Your task to perform on an android device: What is the news today? Image 0: 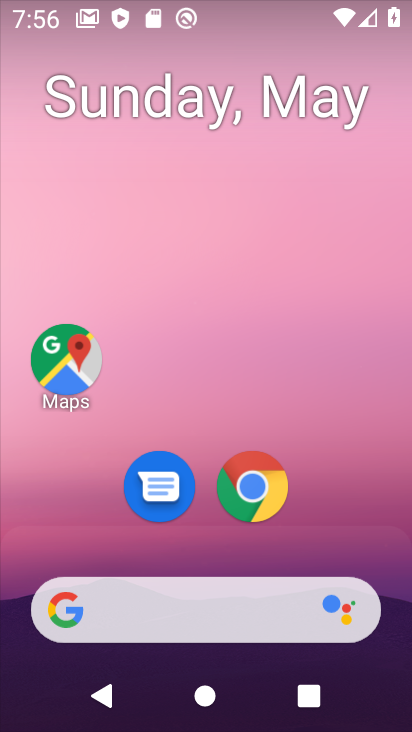
Step 0: click (244, 491)
Your task to perform on an android device: What is the news today? Image 1: 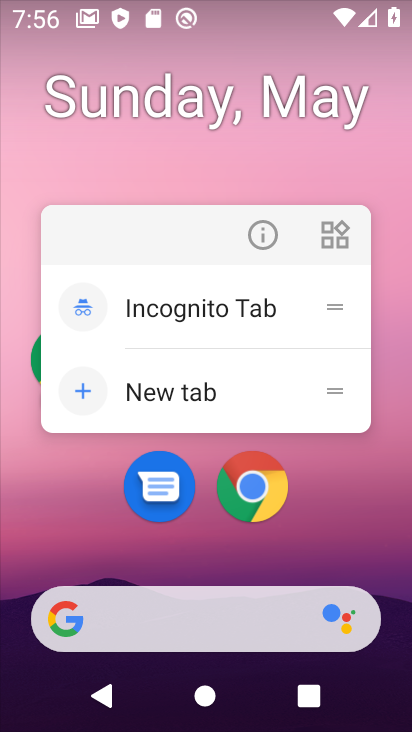
Step 1: click (254, 242)
Your task to perform on an android device: What is the news today? Image 2: 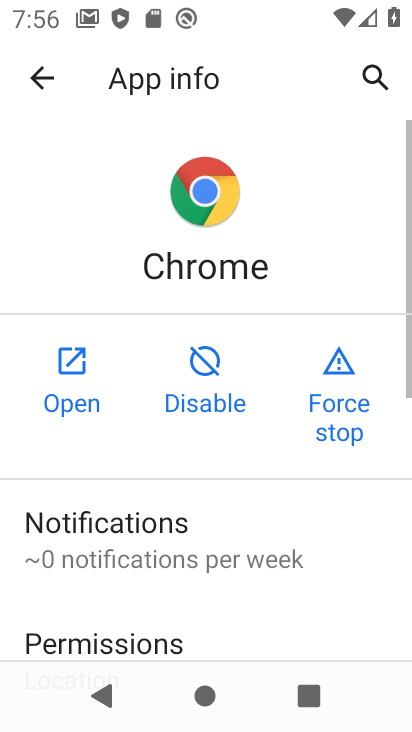
Step 2: click (75, 371)
Your task to perform on an android device: What is the news today? Image 3: 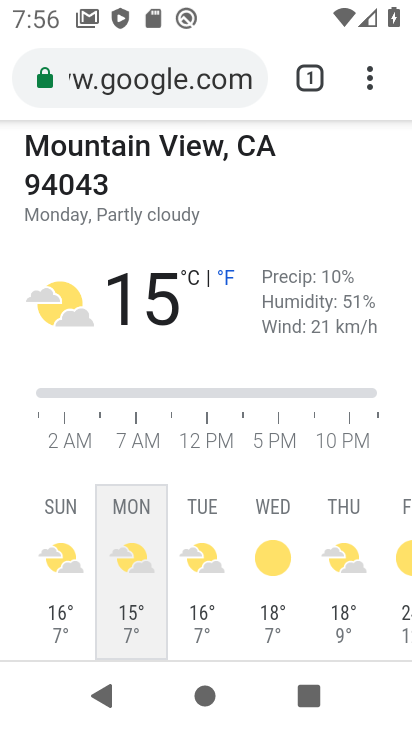
Step 3: click (133, 67)
Your task to perform on an android device: What is the news today? Image 4: 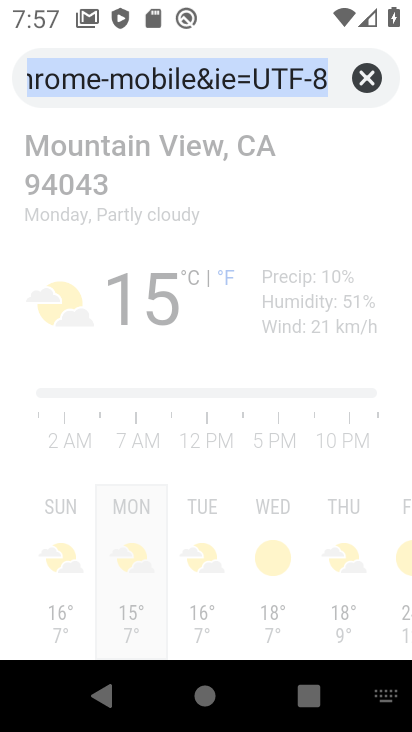
Step 4: type "What is the news today?"
Your task to perform on an android device: What is the news today? Image 5: 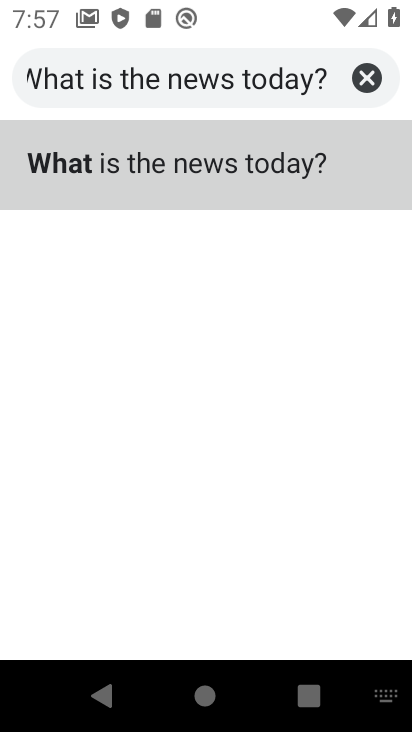
Step 5: click (188, 193)
Your task to perform on an android device: What is the news today? Image 6: 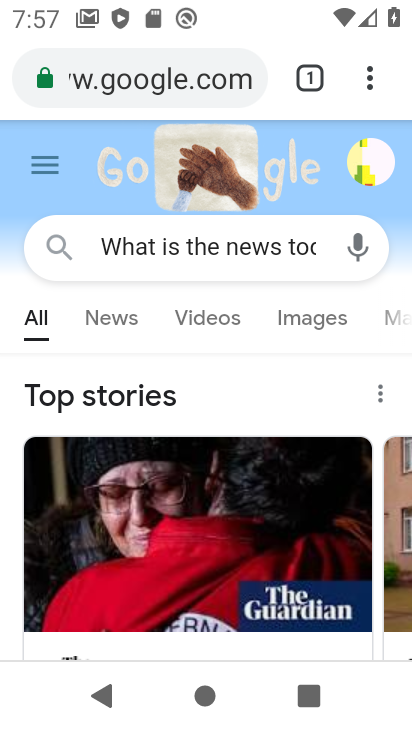
Step 6: task complete